Your task to perform on an android device: turn off translation in the chrome app Image 0: 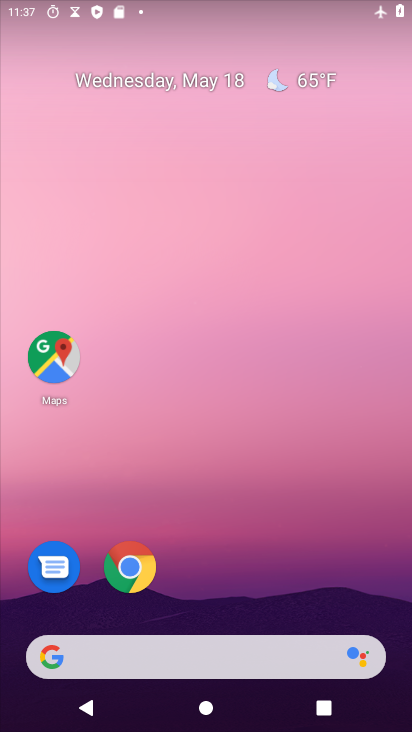
Step 0: click (127, 568)
Your task to perform on an android device: turn off translation in the chrome app Image 1: 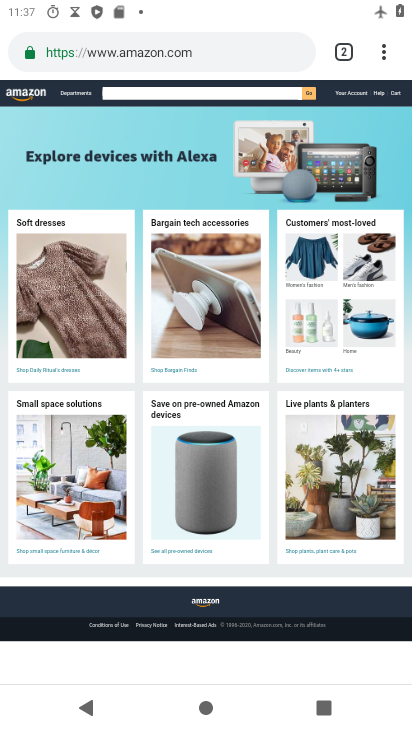
Step 1: click (385, 49)
Your task to perform on an android device: turn off translation in the chrome app Image 2: 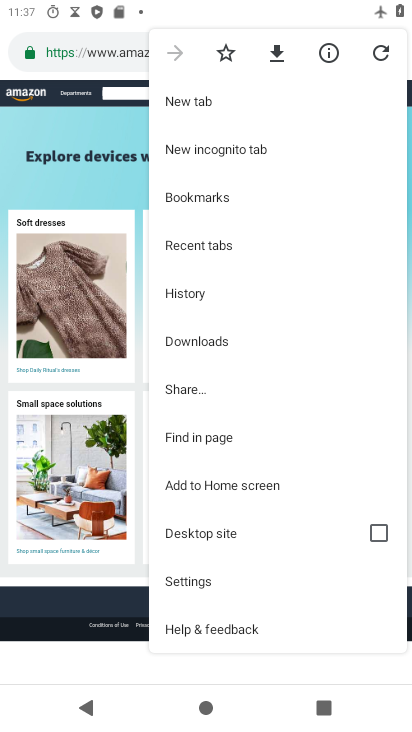
Step 2: click (219, 582)
Your task to perform on an android device: turn off translation in the chrome app Image 3: 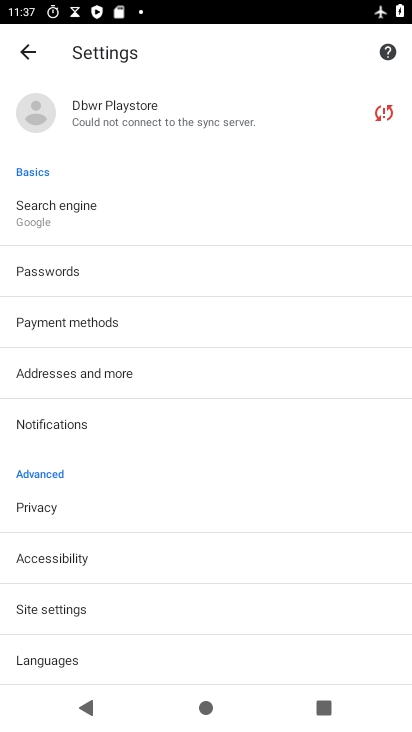
Step 3: click (85, 659)
Your task to perform on an android device: turn off translation in the chrome app Image 4: 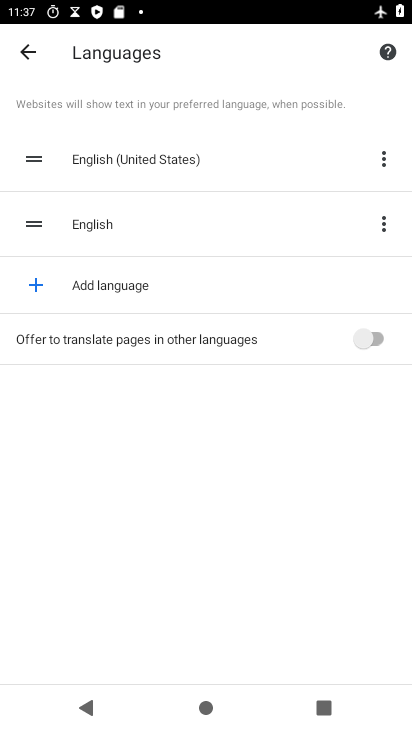
Step 4: click (377, 341)
Your task to perform on an android device: turn off translation in the chrome app Image 5: 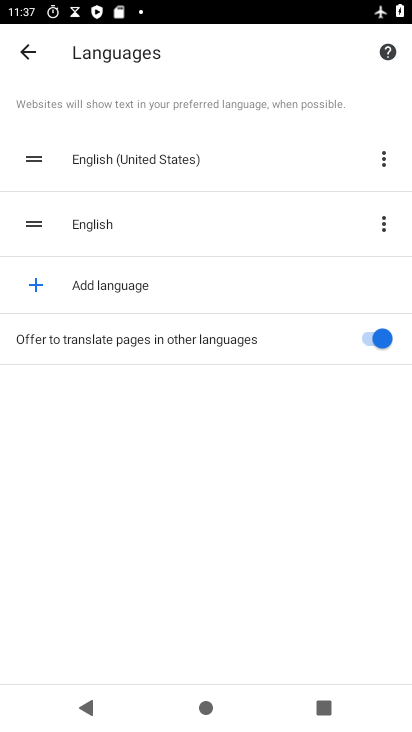
Step 5: click (368, 338)
Your task to perform on an android device: turn off translation in the chrome app Image 6: 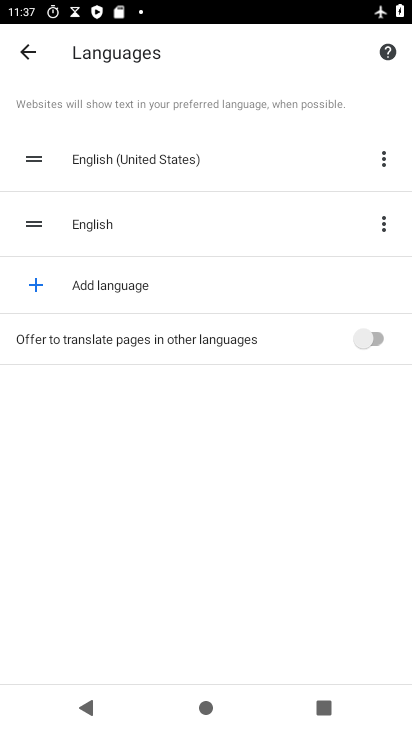
Step 6: task complete